Your task to perform on an android device: turn off priority inbox in the gmail app Image 0: 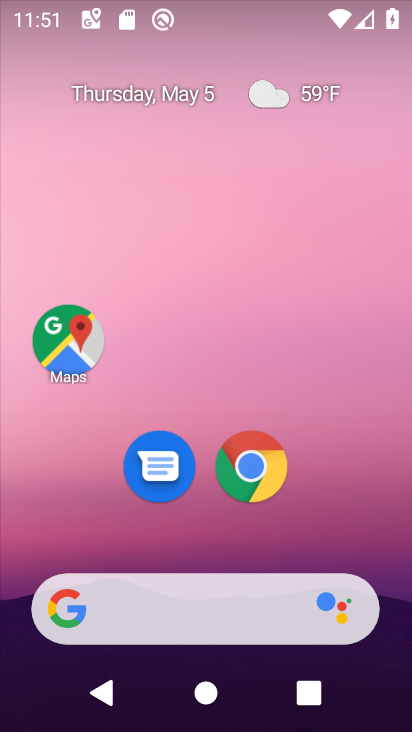
Step 0: drag from (364, 511) to (276, 208)
Your task to perform on an android device: turn off priority inbox in the gmail app Image 1: 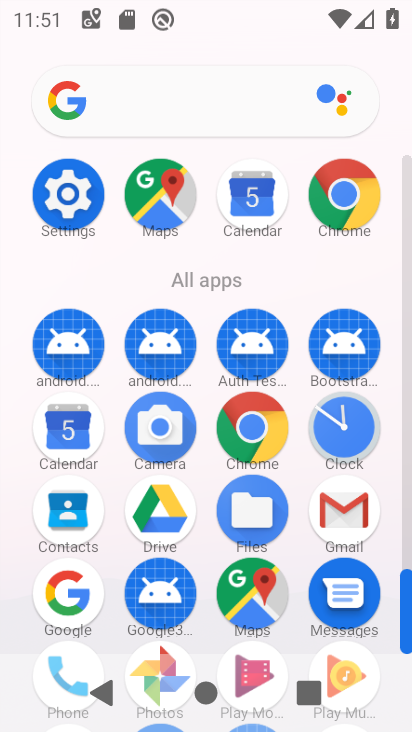
Step 1: click (349, 522)
Your task to perform on an android device: turn off priority inbox in the gmail app Image 2: 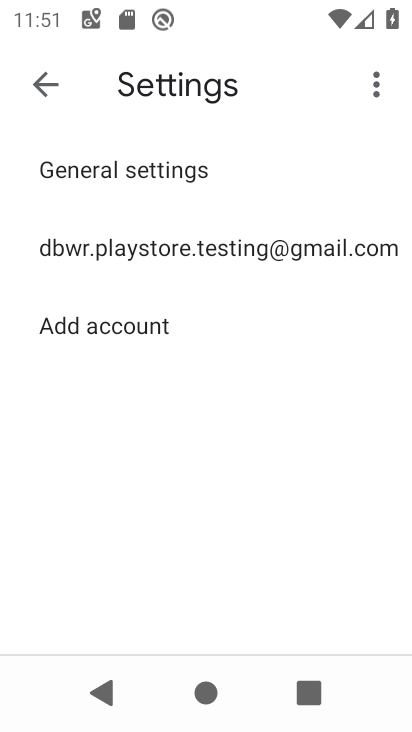
Step 2: click (287, 262)
Your task to perform on an android device: turn off priority inbox in the gmail app Image 3: 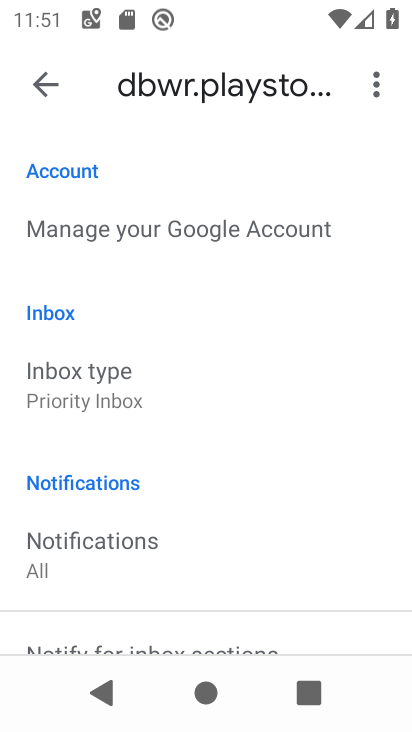
Step 3: click (214, 402)
Your task to perform on an android device: turn off priority inbox in the gmail app Image 4: 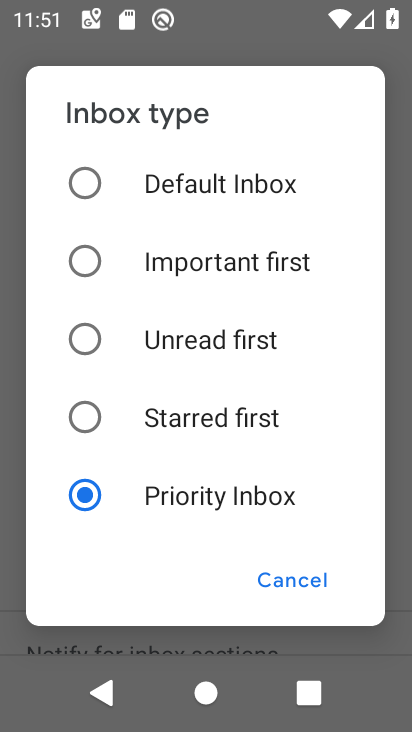
Step 4: click (214, 402)
Your task to perform on an android device: turn off priority inbox in the gmail app Image 5: 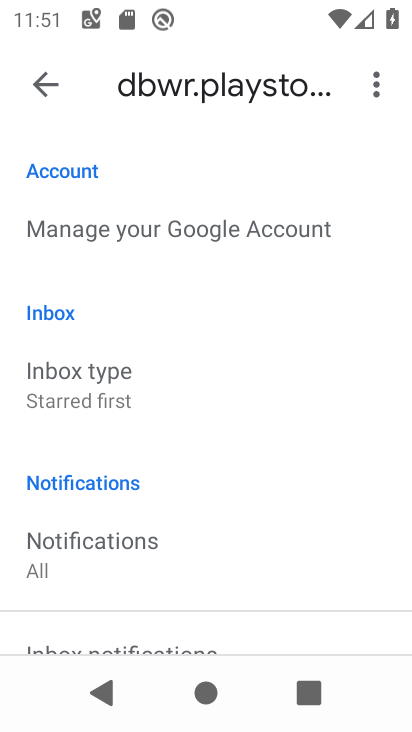
Step 5: task complete